Your task to perform on an android device: Go to sound settings Image 0: 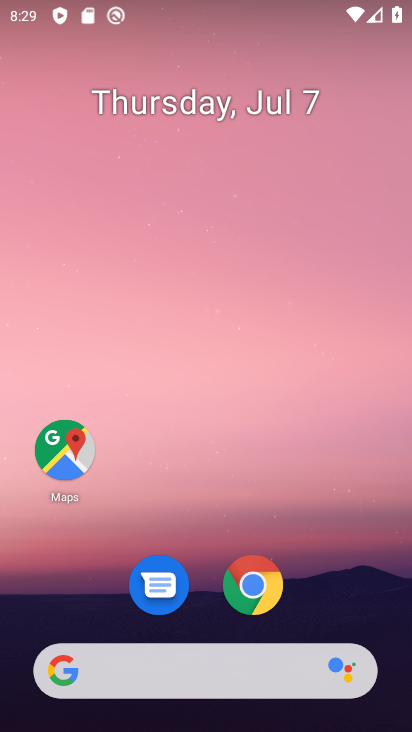
Step 0: click (236, 461)
Your task to perform on an android device: Go to sound settings Image 1: 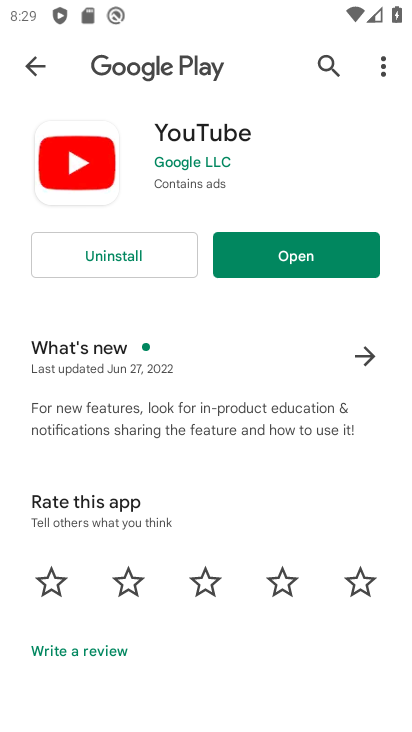
Step 1: press home button
Your task to perform on an android device: Go to sound settings Image 2: 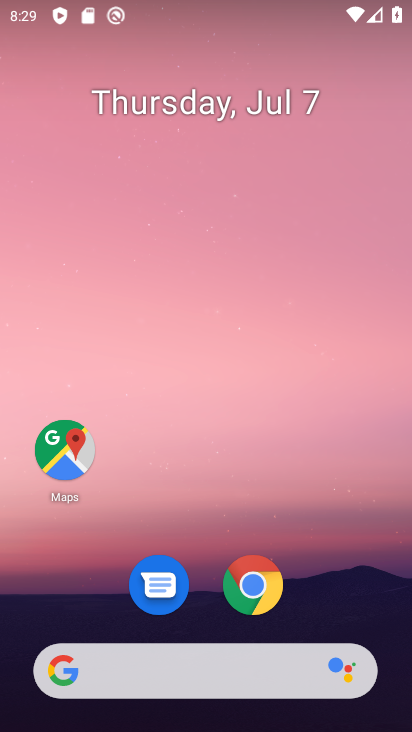
Step 2: drag from (337, 545) to (315, 44)
Your task to perform on an android device: Go to sound settings Image 3: 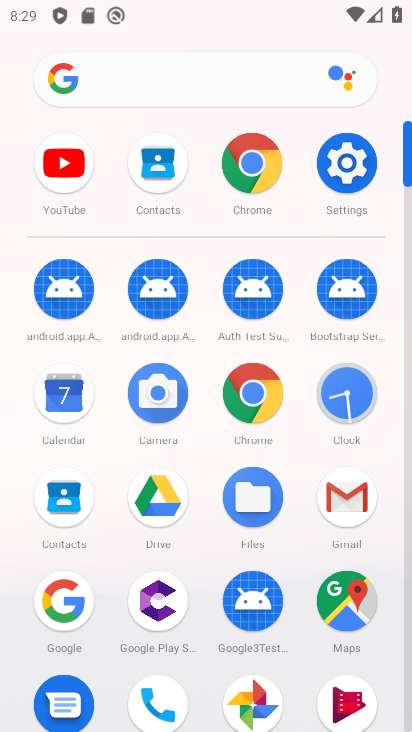
Step 3: click (348, 169)
Your task to perform on an android device: Go to sound settings Image 4: 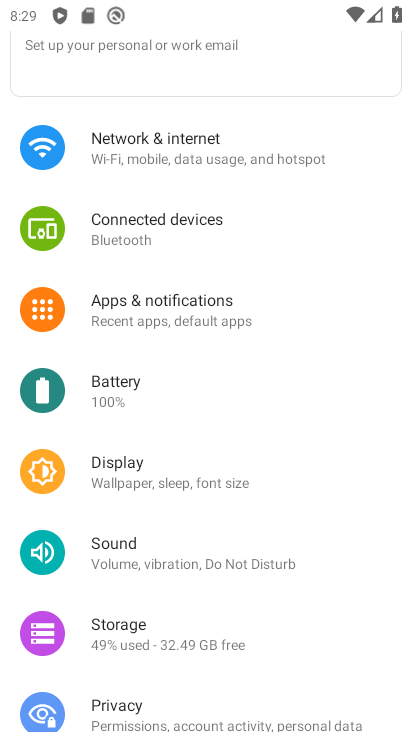
Step 4: click (149, 555)
Your task to perform on an android device: Go to sound settings Image 5: 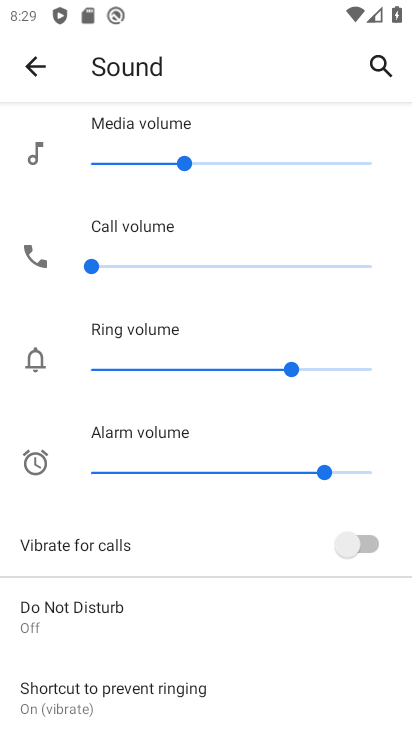
Step 5: task complete